Your task to perform on an android device: toggle data saver in the chrome app Image 0: 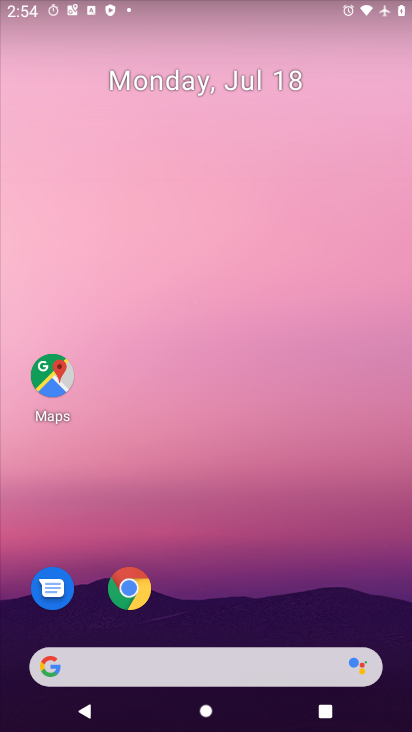
Step 0: drag from (230, 631) to (317, 157)
Your task to perform on an android device: toggle data saver in the chrome app Image 1: 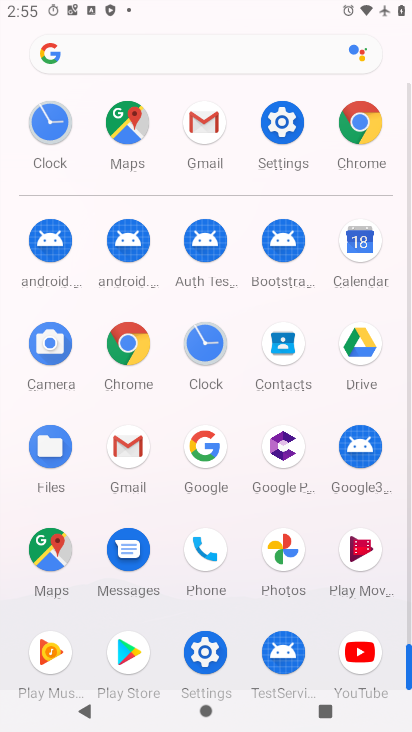
Step 1: click (347, 154)
Your task to perform on an android device: toggle data saver in the chrome app Image 2: 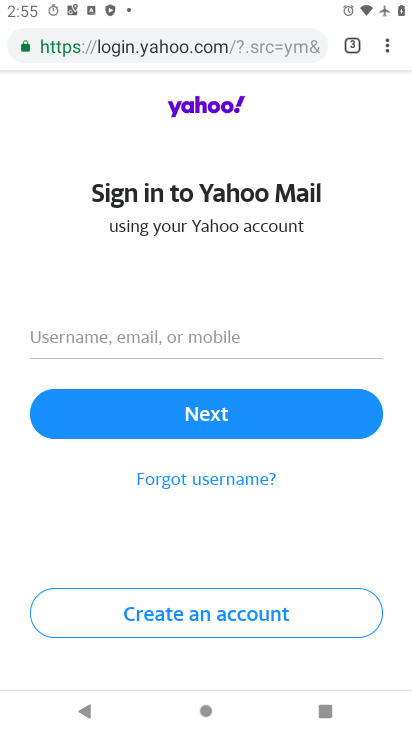
Step 2: click (387, 50)
Your task to perform on an android device: toggle data saver in the chrome app Image 3: 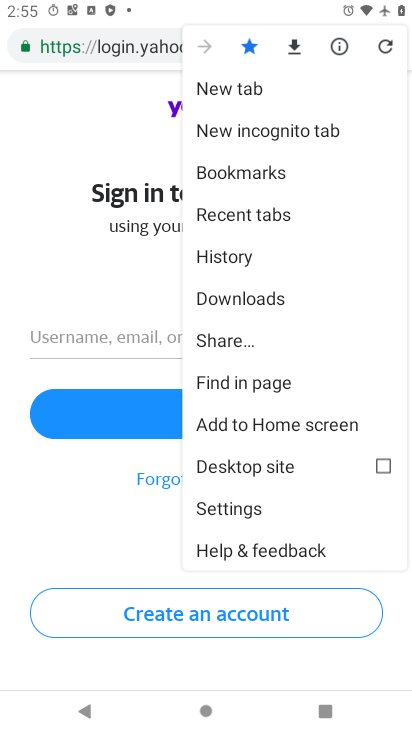
Step 3: click (230, 514)
Your task to perform on an android device: toggle data saver in the chrome app Image 4: 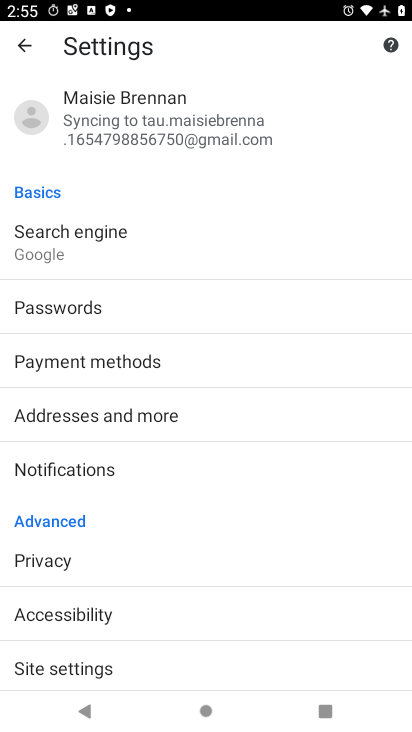
Step 4: drag from (137, 608) to (191, 275)
Your task to perform on an android device: toggle data saver in the chrome app Image 5: 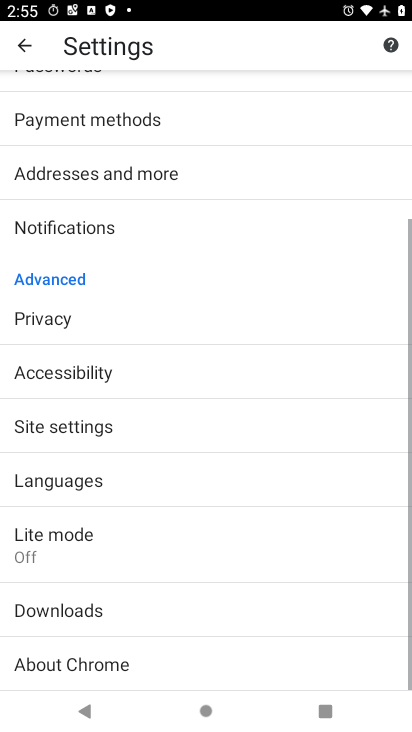
Step 5: click (71, 554)
Your task to perform on an android device: toggle data saver in the chrome app Image 6: 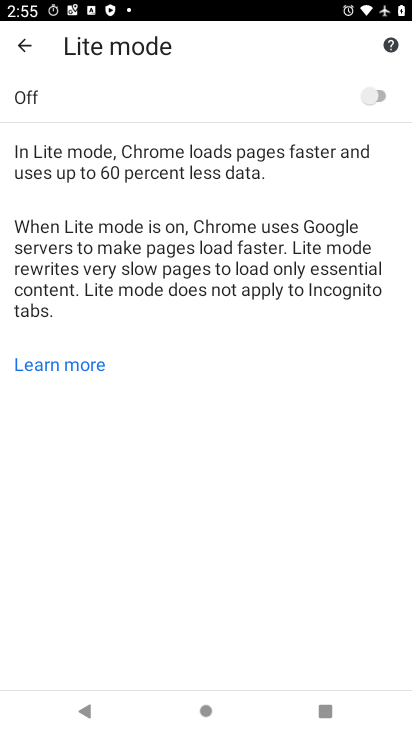
Step 6: click (381, 87)
Your task to perform on an android device: toggle data saver in the chrome app Image 7: 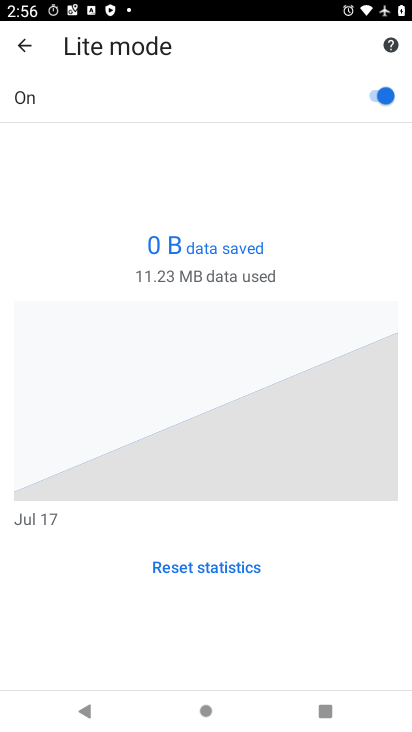
Step 7: task complete